Your task to perform on an android device: What is the recent news? Image 0: 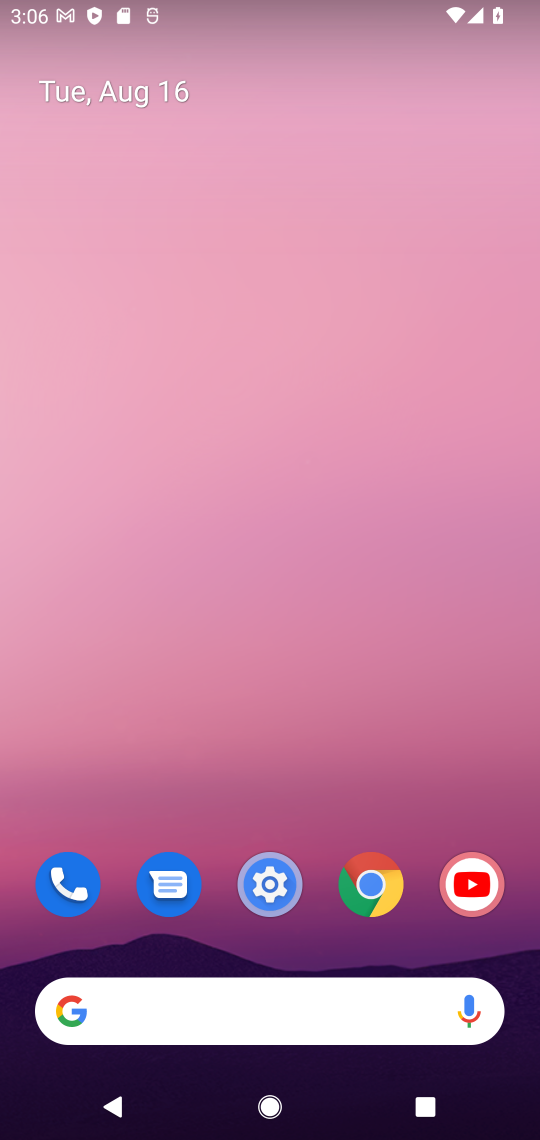
Step 0: drag from (278, 391) to (293, 48)
Your task to perform on an android device: What is the recent news? Image 1: 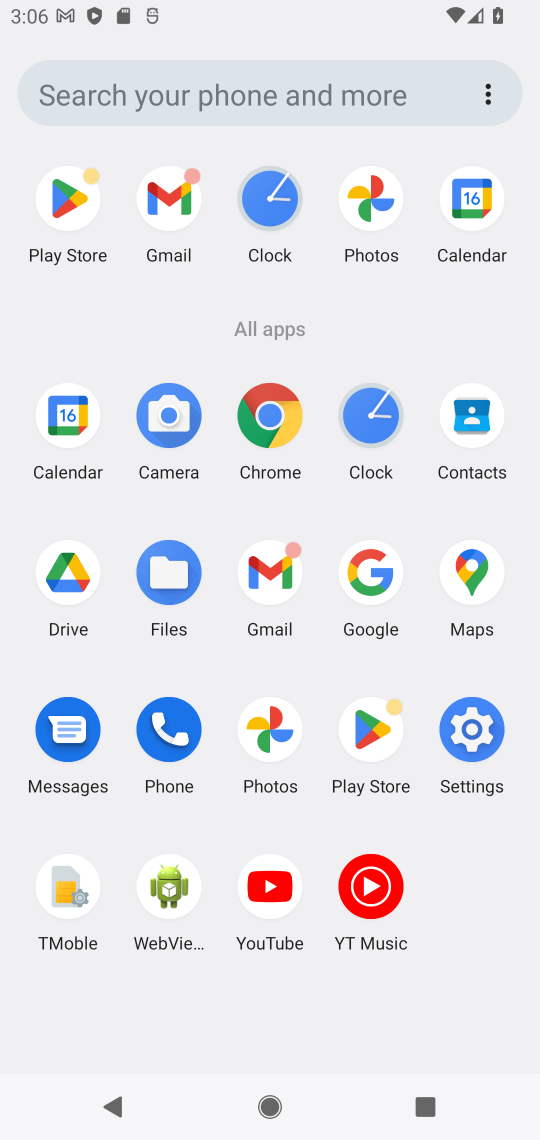
Step 1: click (348, 577)
Your task to perform on an android device: What is the recent news? Image 2: 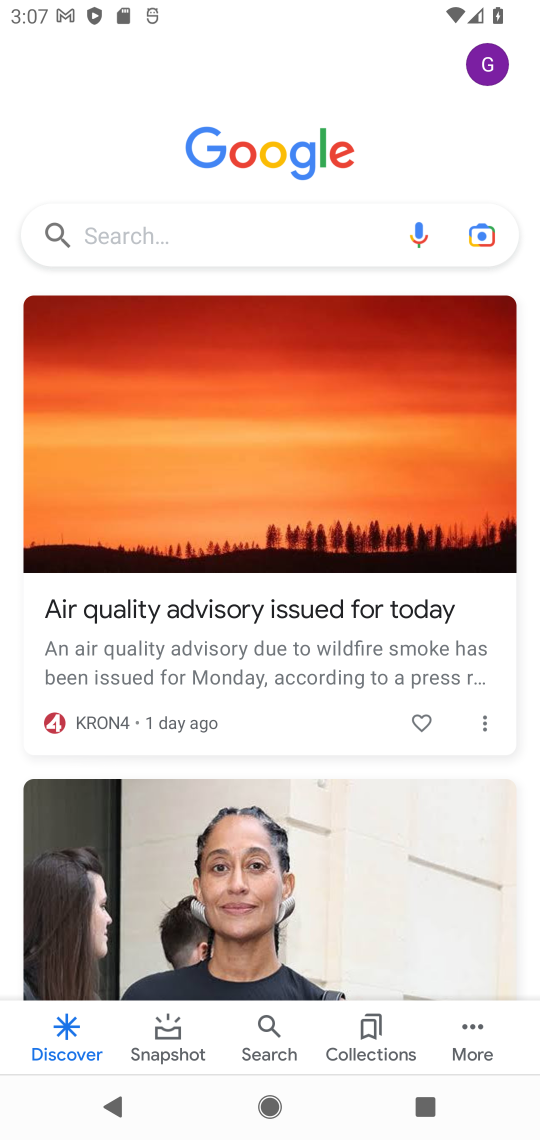
Step 2: click (142, 230)
Your task to perform on an android device: What is the recent news? Image 3: 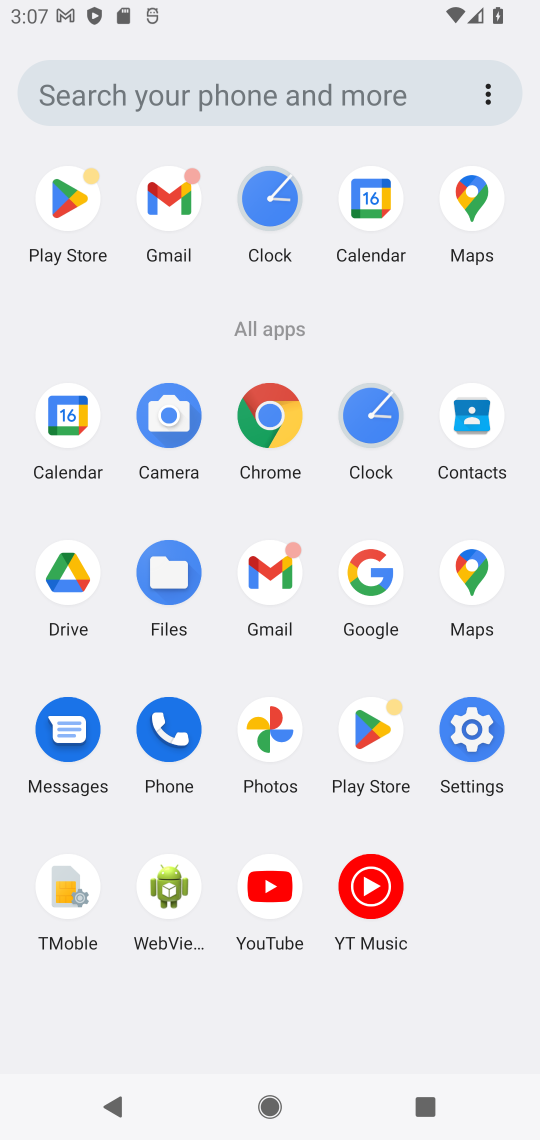
Step 3: click (359, 561)
Your task to perform on an android device: What is the recent news? Image 4: 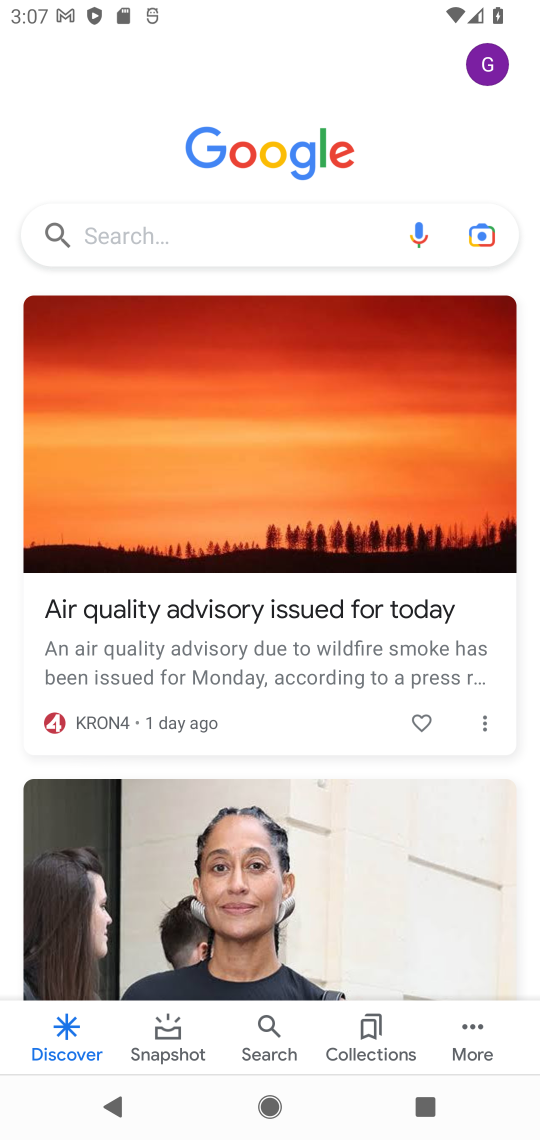
Step 4: click (151, 235)
Your task to perform on an android device: What is the recent news? Image 5: 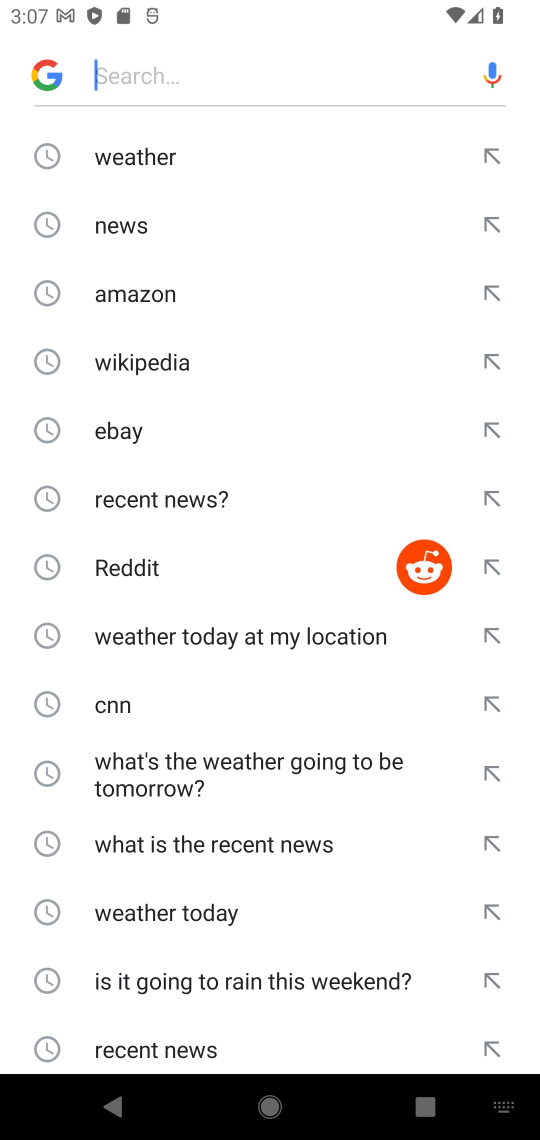
Step 5: click (151, 235)
Your task to perform on an android device: What is the recent news? Image 6: 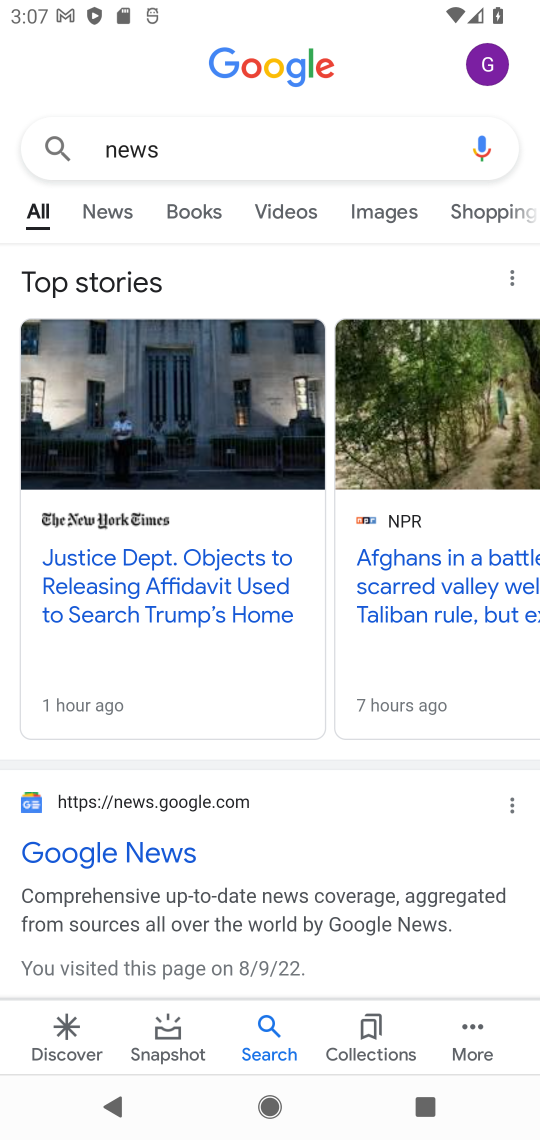
Step 6: click (104, 222)
Your task to perform on an android device: What is the recent news? Image 7: 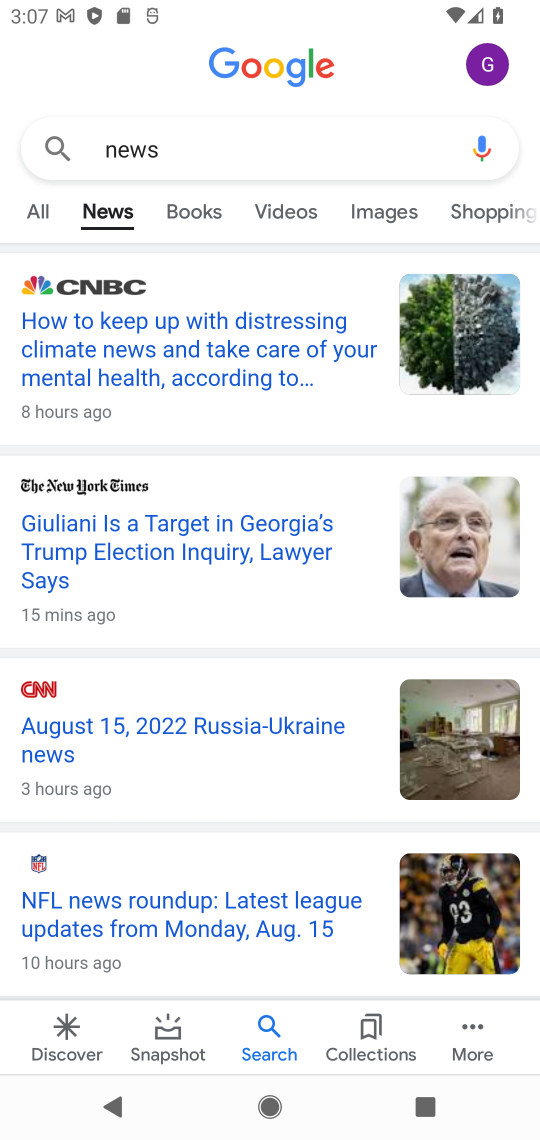
Step 7: task complete